Your task to perform on an android device: Do I have any events this weekend? Image 0: 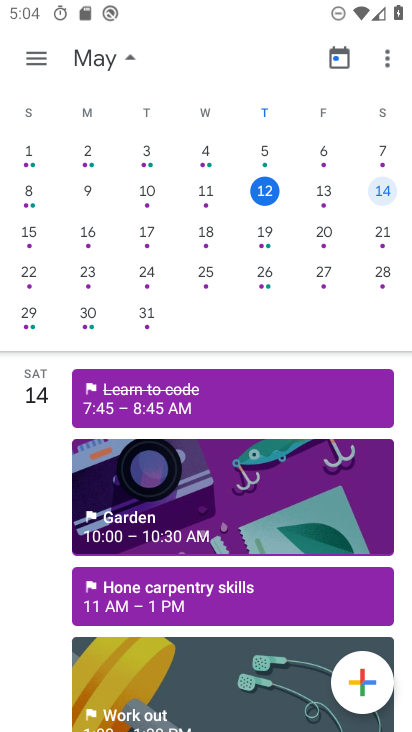
Step 0: drag from (186, 624) to (343, 153)
Your task to perform on an android device: Do I have any events this weekend? Image 1: 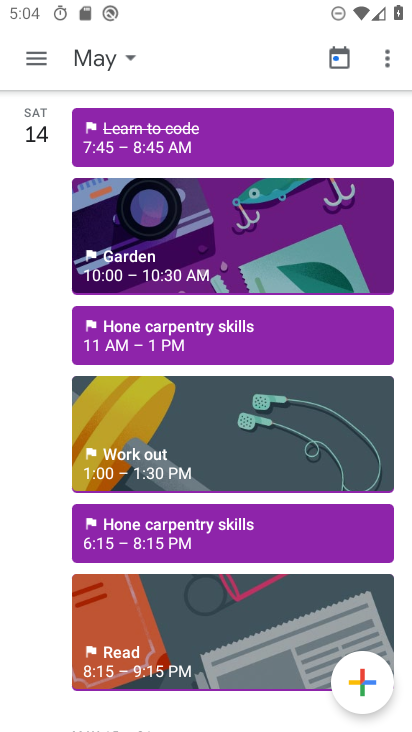
Step 1: drag from (168, 638) to (354, 96)
Your task to perform on an android device: Do I have any events this weekend? Image 2: 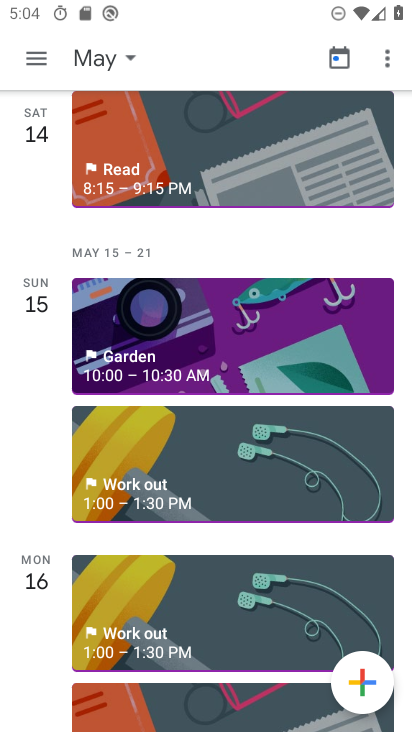
Step 2: drag from (268, 682) to (264, 123)
Your task to perform on an android device: Do I have any events this weekend? Image 3: 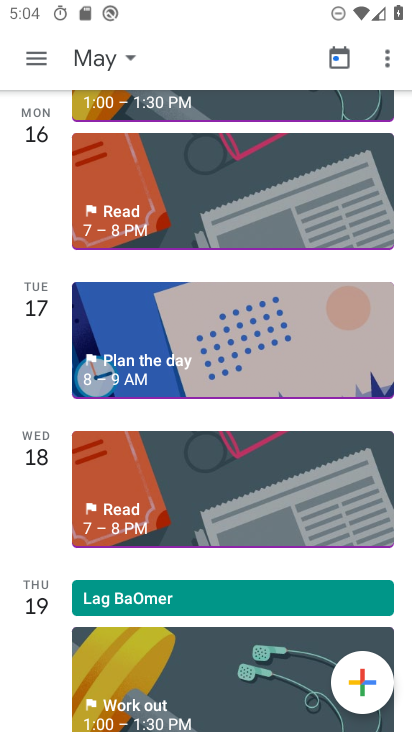
Step 3: click (116, 68)
Your task to perform on an android device: Do I have any events this weekend? Image 4: 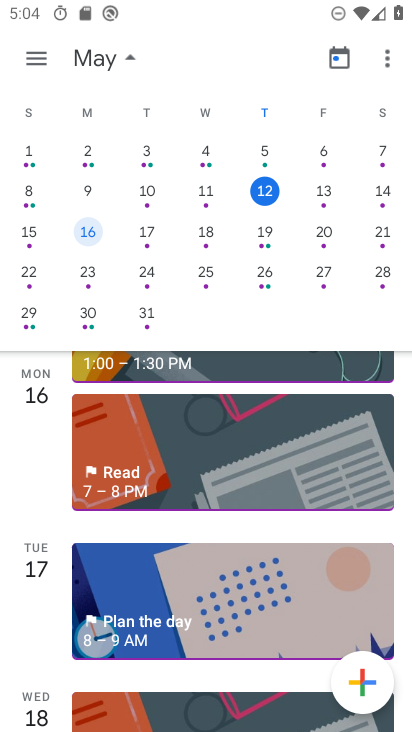
Step 4: click (379, 192)
Your task to perform on an android device: Do I have any events this weekend? Image 5: 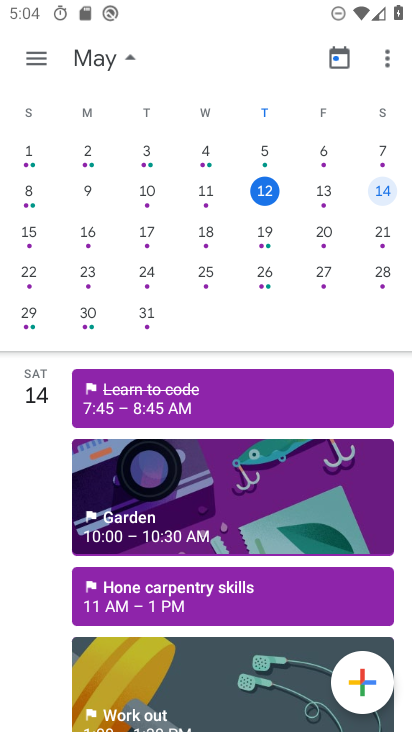
Step 5: task complete